Your task to perform on an android device: turn on the 12-hour format for clock Image 0: 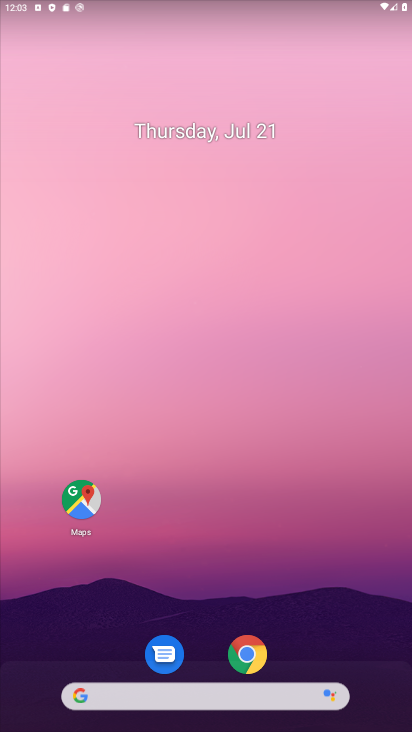
Step 0: drag from (205, 633) to (152, 254)
Your task to perform on an android device: turn on the 12-hour format for clock Image 1: 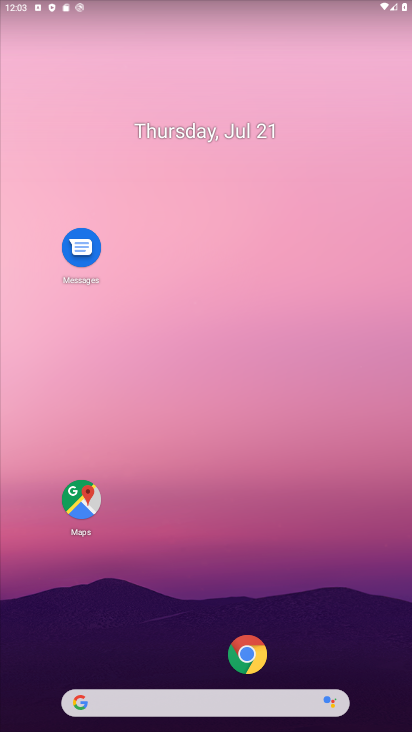
Step 1: drag from (123, 620) to (147, 257)
Your task to perform on an android device: turn on the 12-hour format for clock Image 2: 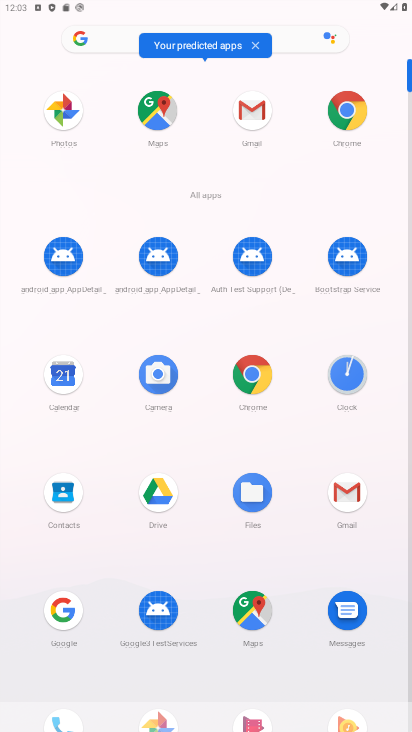
Step 2: click (355, 363)
Your task to perform on an android device: turn on the 12-hour format for clock Image 3: 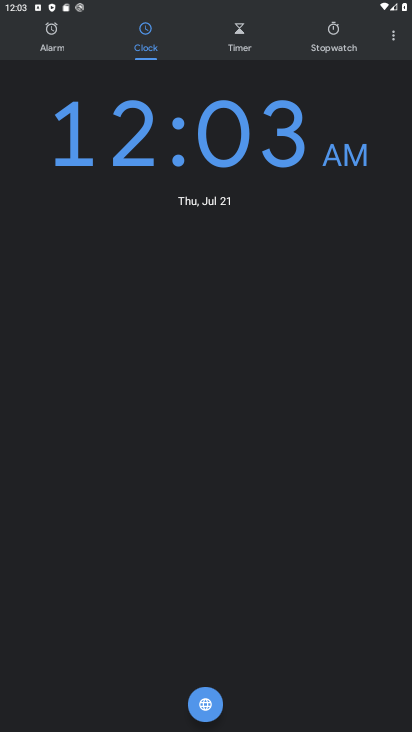
Step 3: click (382, 49)
Your task to perform on an android device: turn on the 12-hour format for clock Image 4: 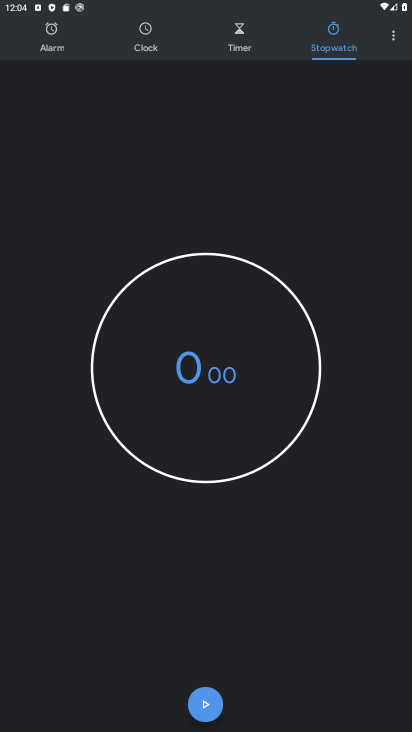
Step 4: click (396, 47)
Your task to perform on an android device: turn on the 12-hour format for clock Image 5: 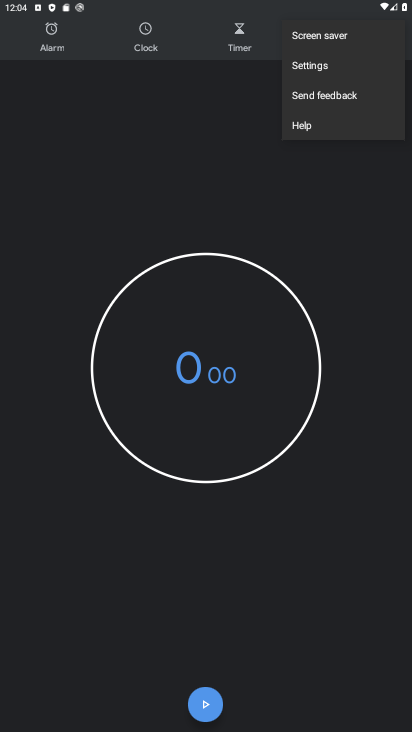
Step 5: click (329, 76)
Your task to perform on an android device: turn on the 12-hour format for clock Image 6: 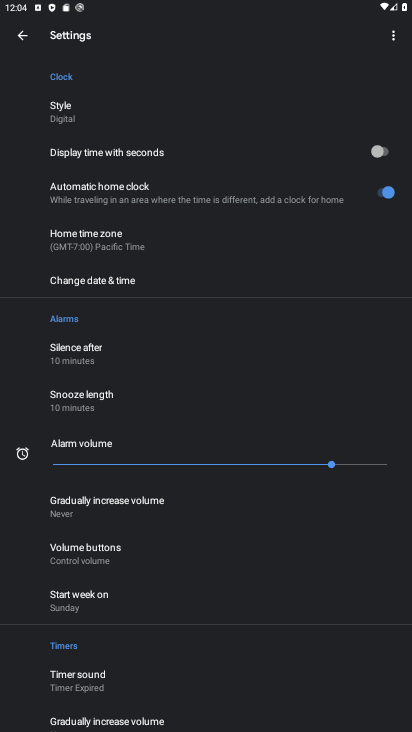
Step 6: task complete